Your task to perform on an android device: set the stopwatch Image 0: 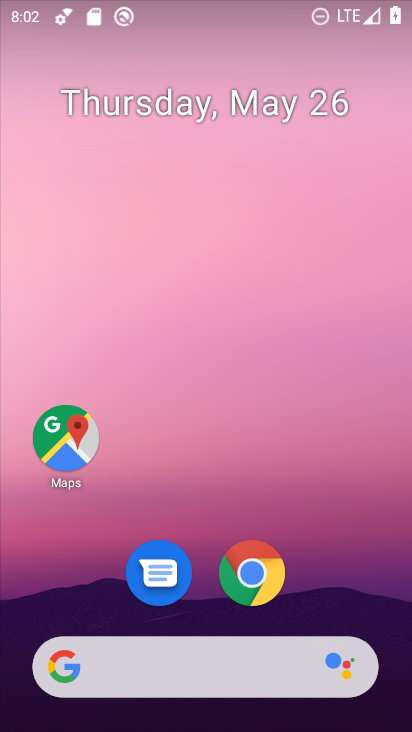
Step 0: drag from (347, 597) to (260, 73)
Your task to perform on an android device: set the stopwatch Image 1: 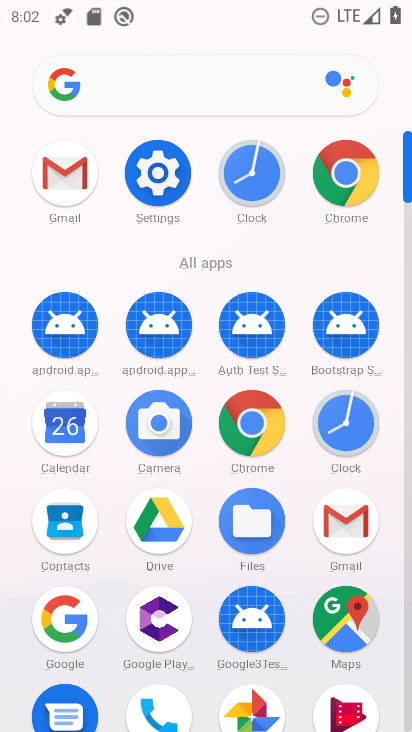
Step 1: drag from (16, 613) to (1, 329)
Your task to perform on an android device: set the stopwatch Image 2: 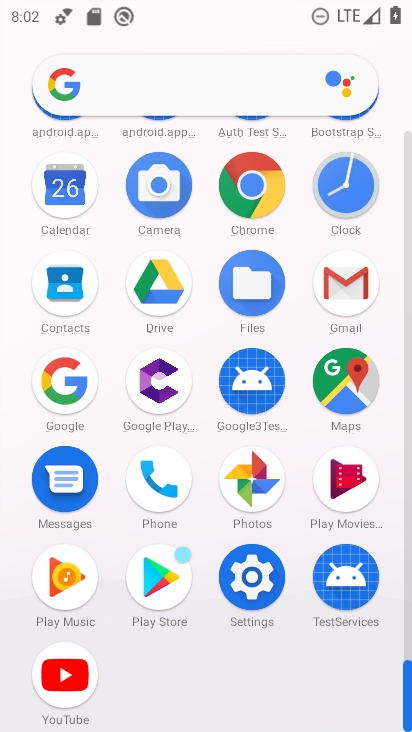
Step 2: click (342, 179)
Your task to perform on an android device: set the stopwatch Image 3: 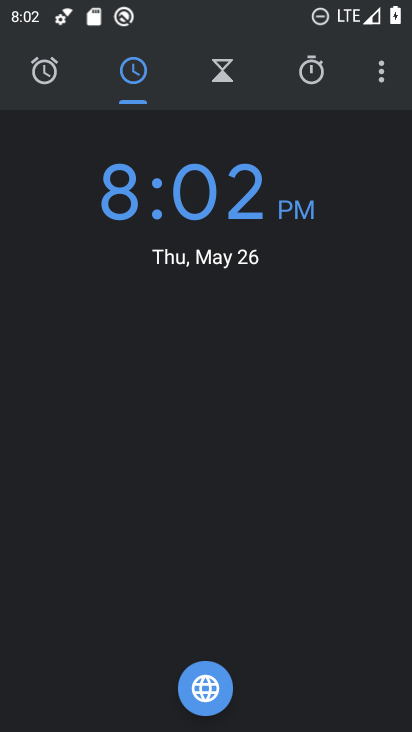
Step 3: click (309, 62)
Your task to perform on an android device: set the stopwatch Image 4: 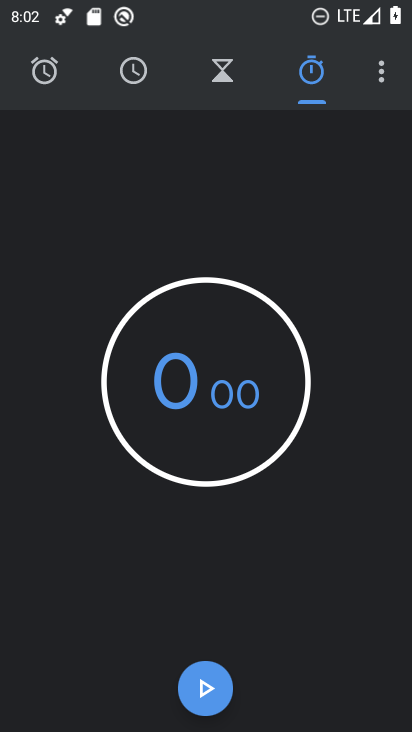
Step 4: click (204, 680)
Your task to perform on an android device: set the stopwatch Image 5: 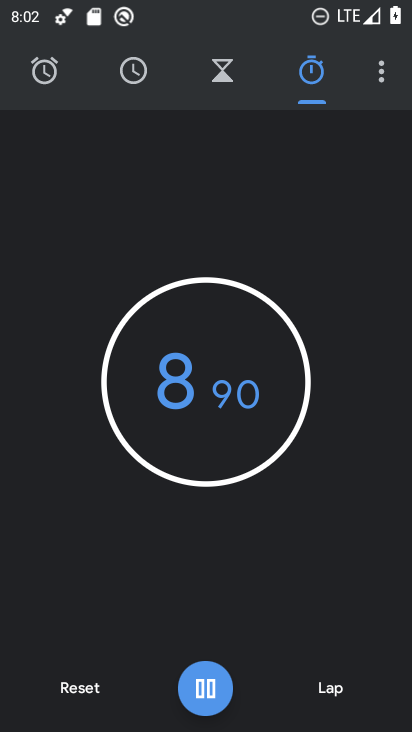
Step 5: task complete